Your task to perform on an android device: change the clock display to digital Image 0: 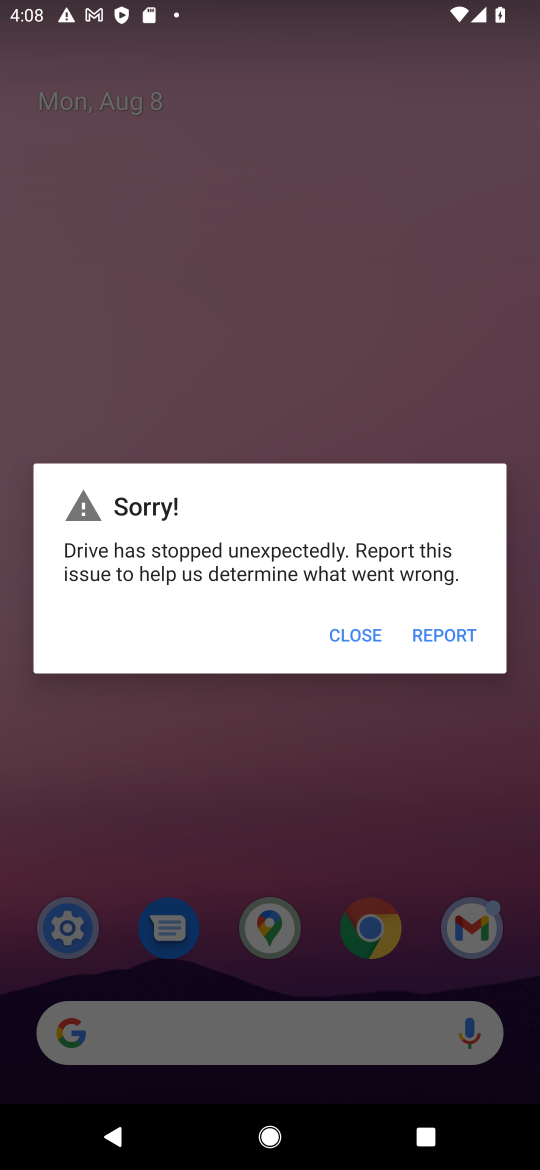
Step 0: press home button
Your task to perform on an android device: change the clock display to digital Image 1: 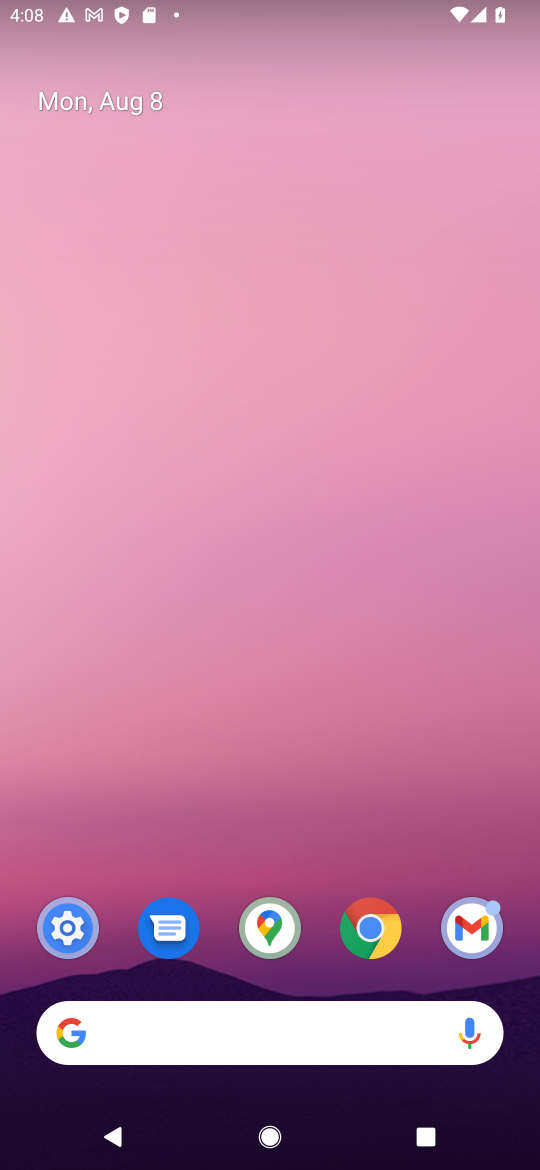
Step 1: drag from (343, 869) to (329, 18)
Your task to perform on an android device: change the clock display to digital Image 2: 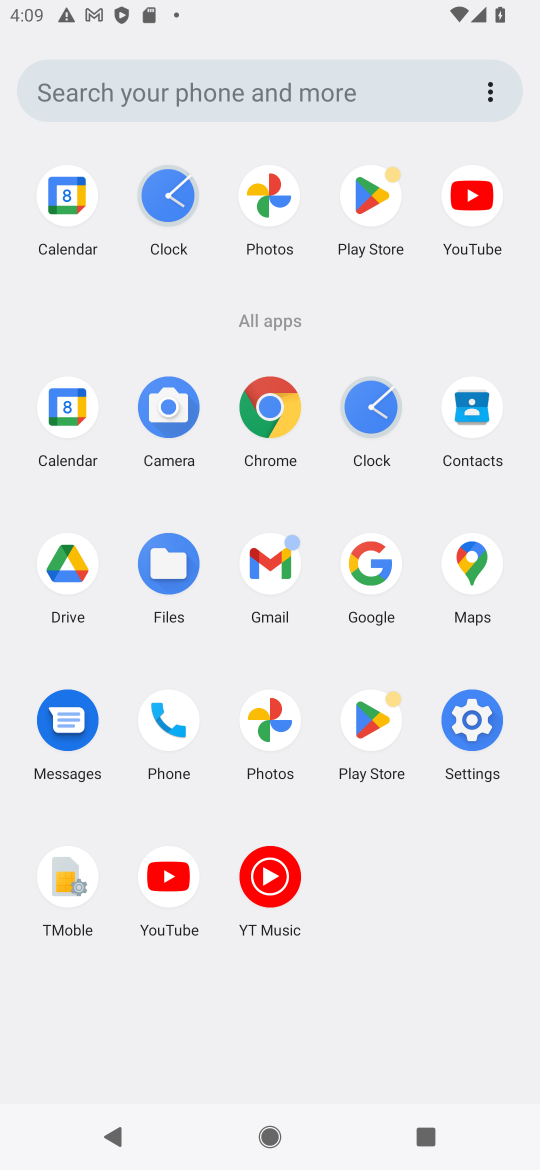
Step 2: click (385, 439)
Your task to perform on an android device: change the clock display to digital Image 3: 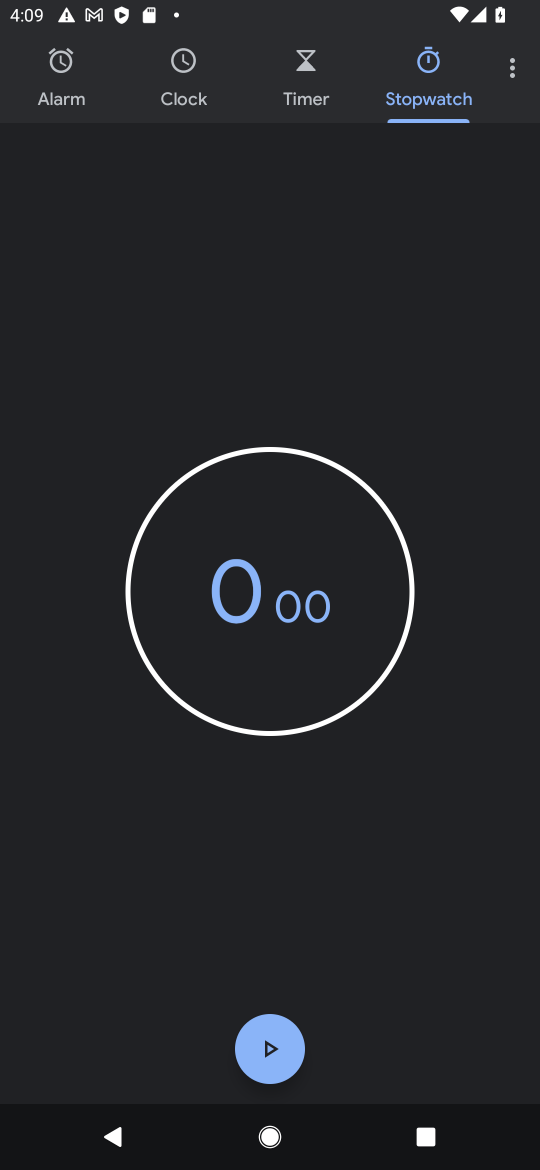
Step 3: click (517, 75)
Your task to perform on an android device: change the clock display to digital Image 4: 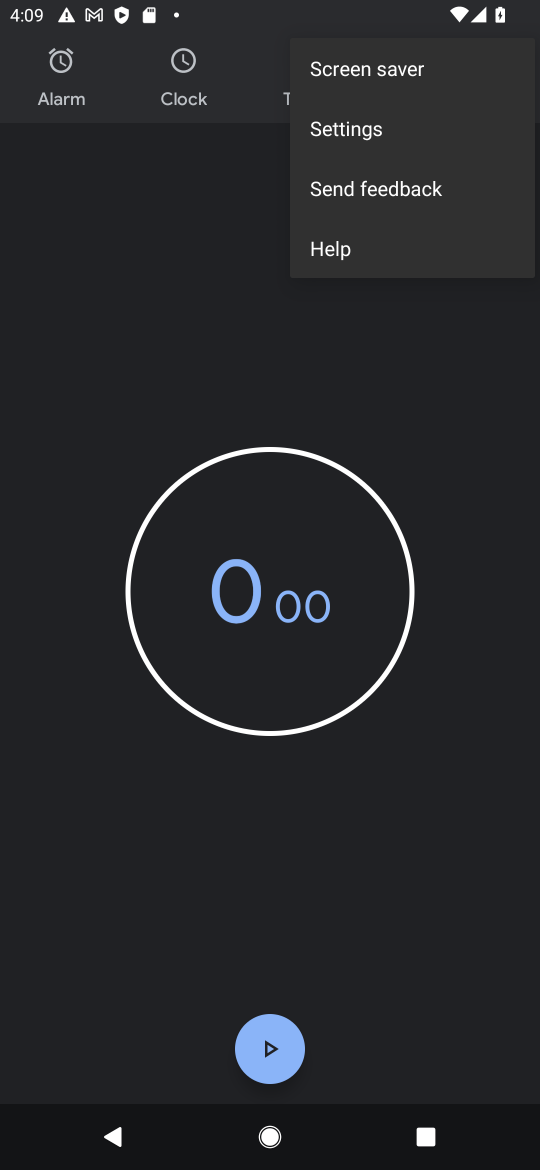
Step 4: click (322, 122)
Your task to perform on an android device: change the clock display to digital Image 5: 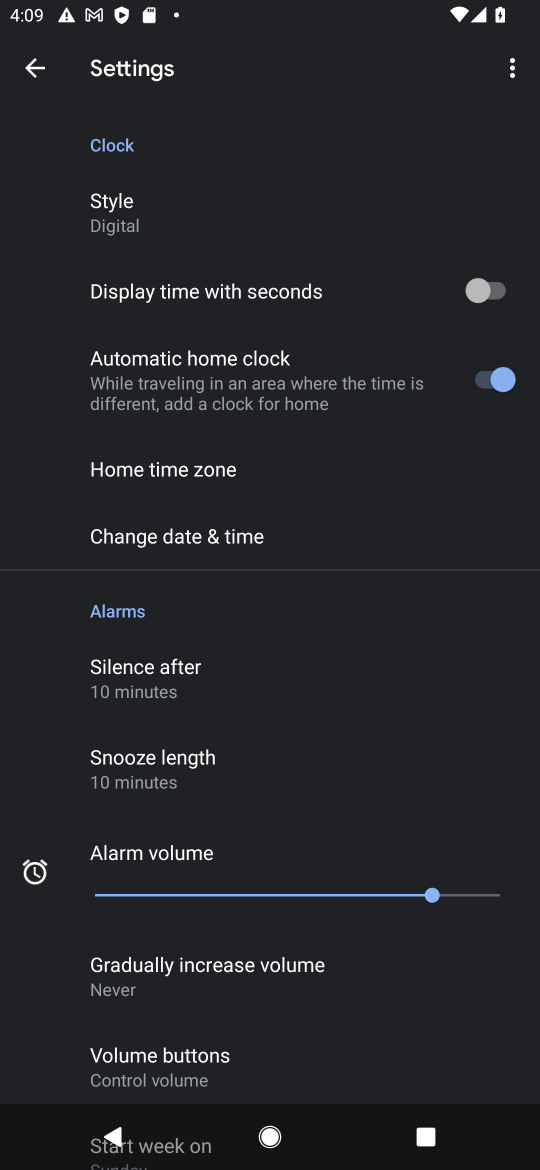
Step 5: click (185, 223)
Your task to perform on an android device: change the clock display to digital Image 6: 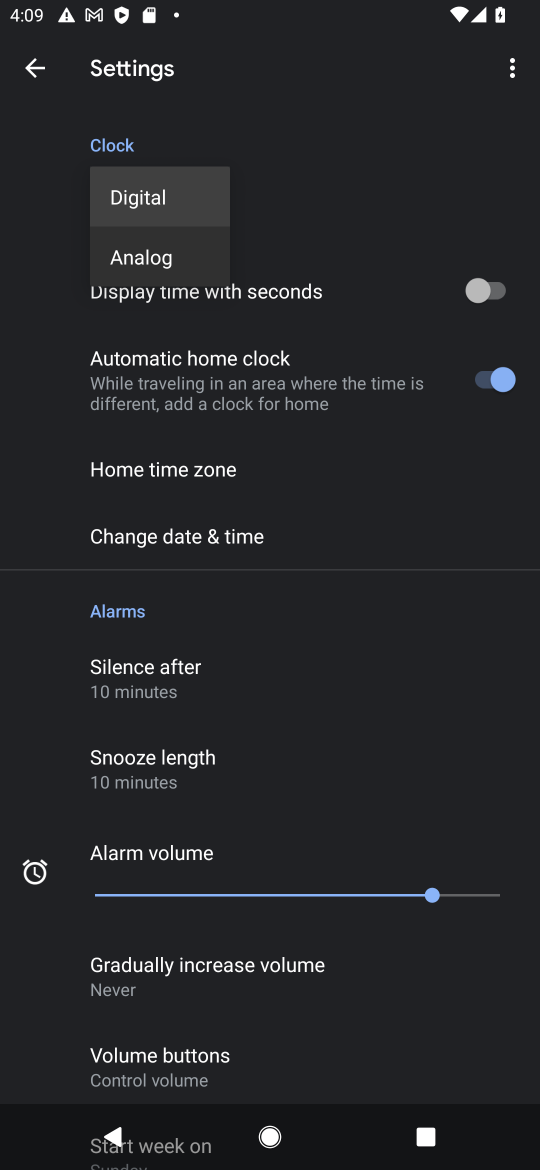
Step 6: click (183, 210)
Your task to perform on an android device: change the clock display to digital Image 7: 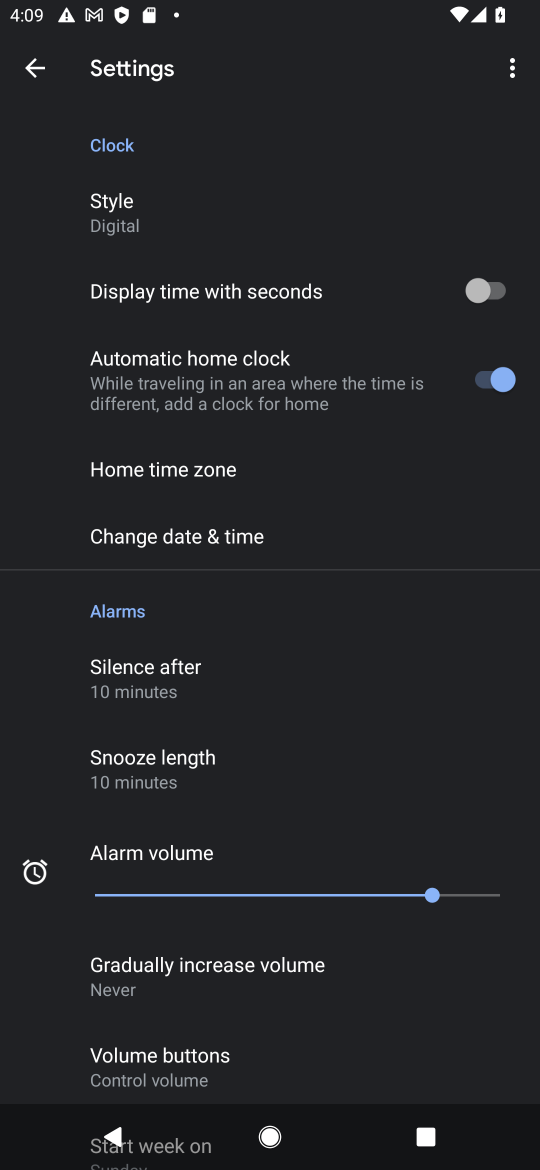
Step 7: click (125, 195)
Your task to perform on an android device: change the clock display to digital Image 8: 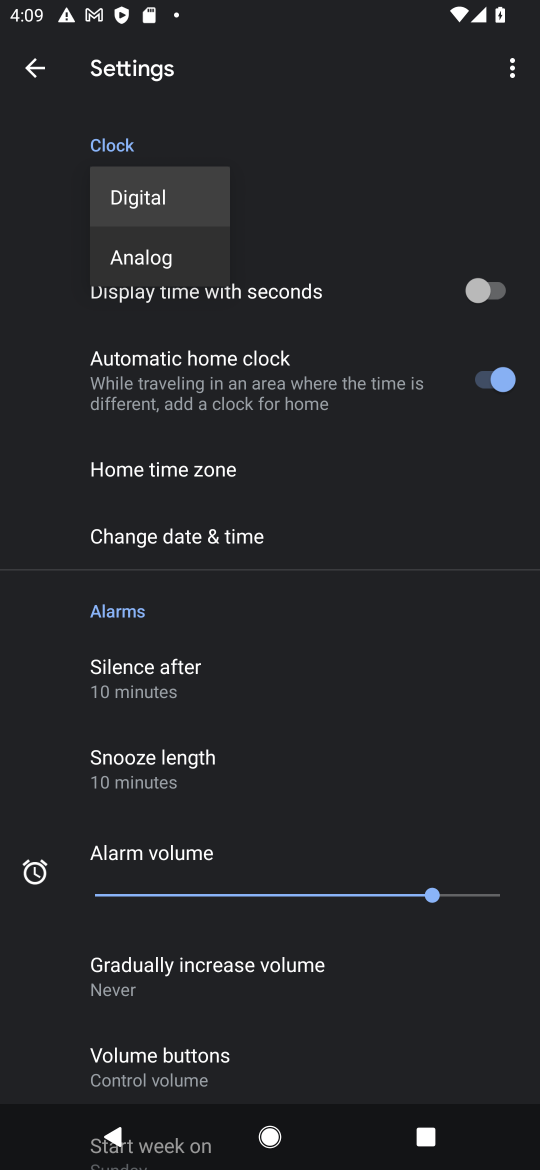
Step 8: task complete